Your task to perform on an android device: Open the map Image 0: 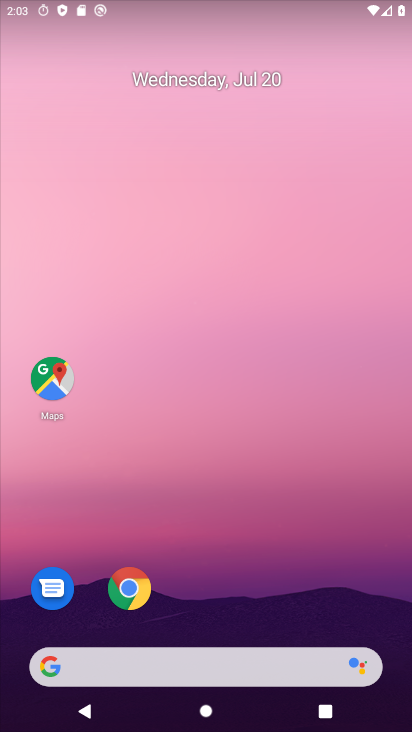
Step 0: drag from (249, 670) to (261, 36)
Your task to perform on an android device: Open the map Image 1: 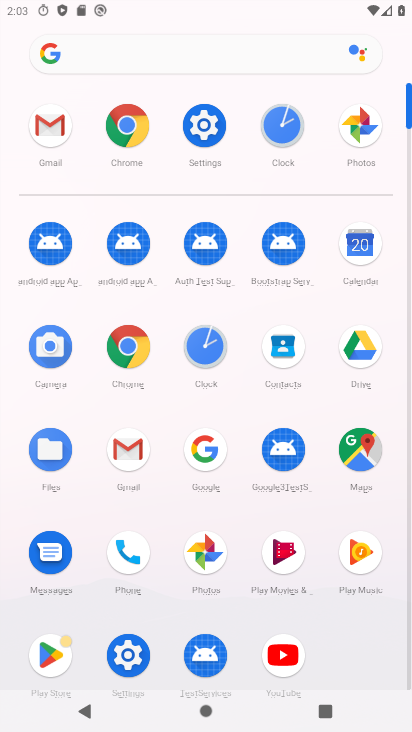
Step 1: click (359, 467)
Your task to perform on an android device: Open the map Image 2: 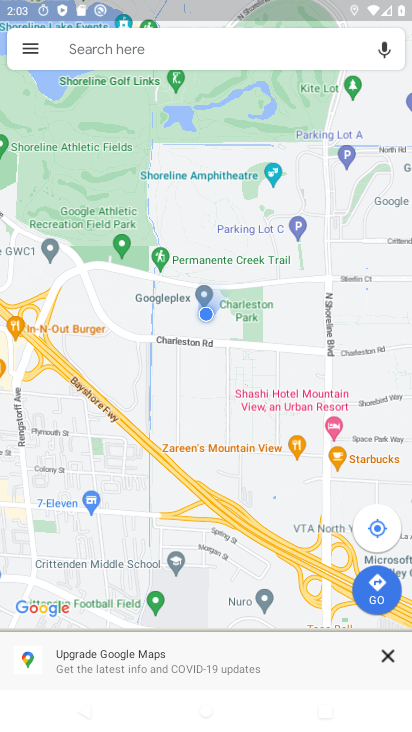
Step 2: task complete